Your task to perform on an android device: Go to sound settings Image 0: 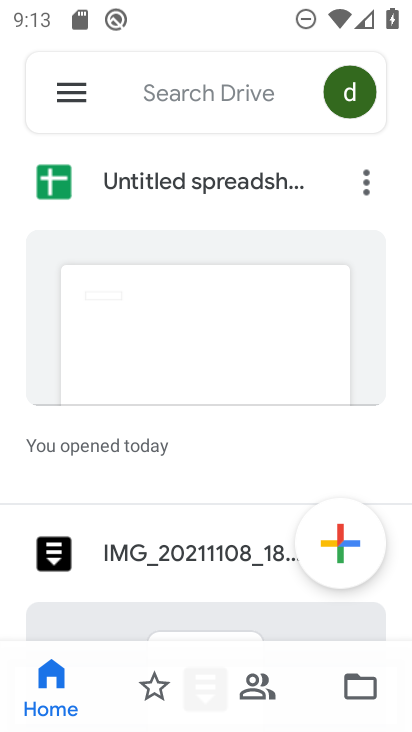
Step 0: press home button
Your task to perform on an android device: Go to sound settings Image 1: 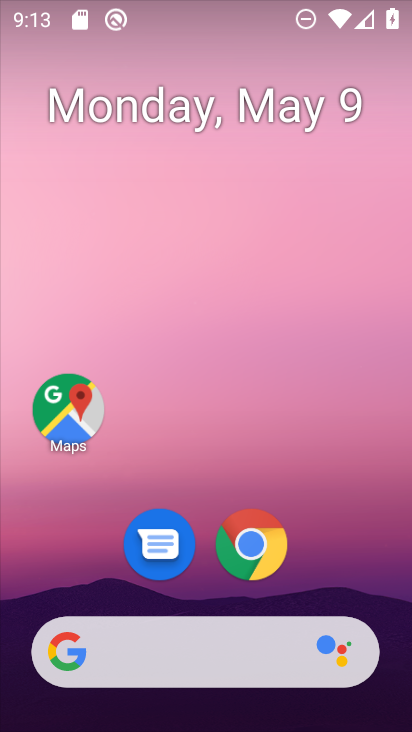
Step 1: drag from (328, 578) to (227, 111)
Your task to perform on an android device: Go to sound settings Image 2: 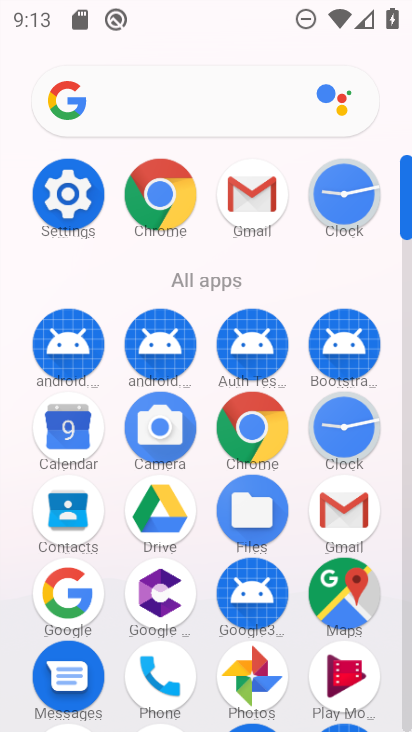
Step 2: click (62, 202)
Your task to perform on an android device: Go to sound settings Image 3: 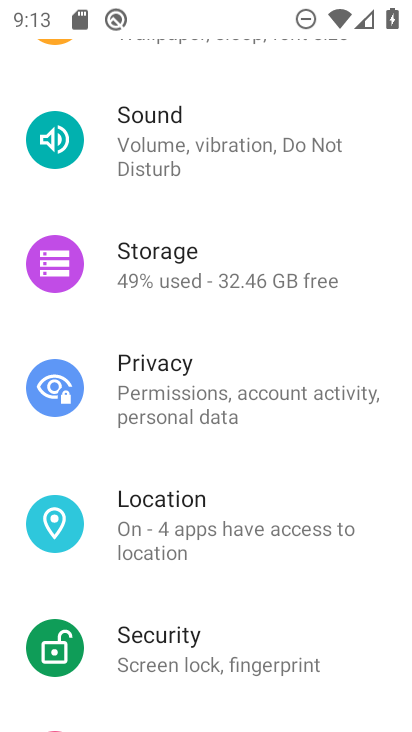
Step 3: drag from (234, 476) to (235, 168)
Your task to perform on an android device: Go to sound settings Image 4: 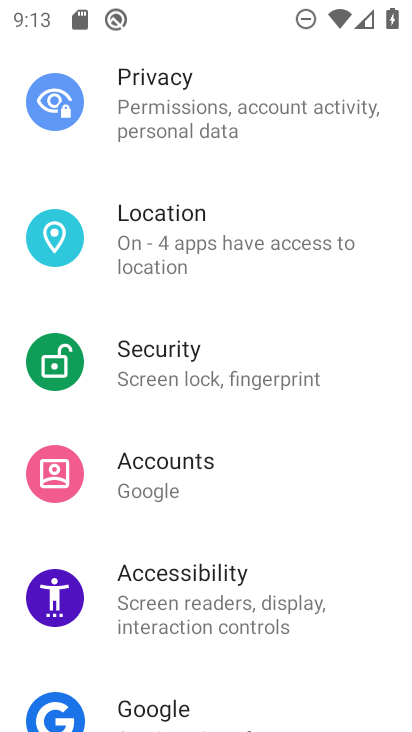
Step 4: drag from (210, 523) to (139, 189)
Your task to perform on an android device: Go to sound settings Image 5: 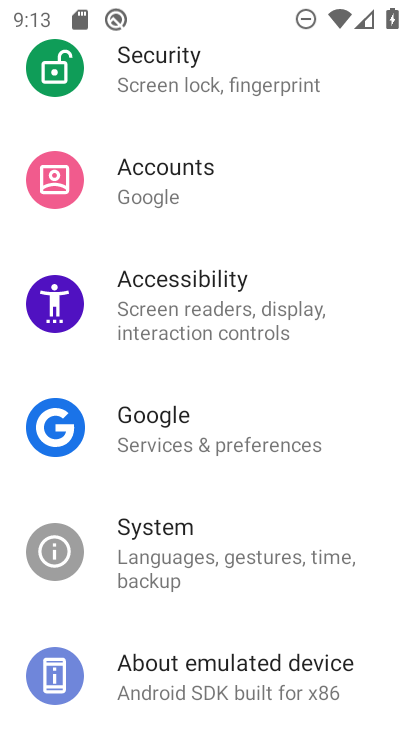
Step 5: drag from (184, 211) to (219, 641)
Your task to perform on an android device: Go to sound settings Image 6: 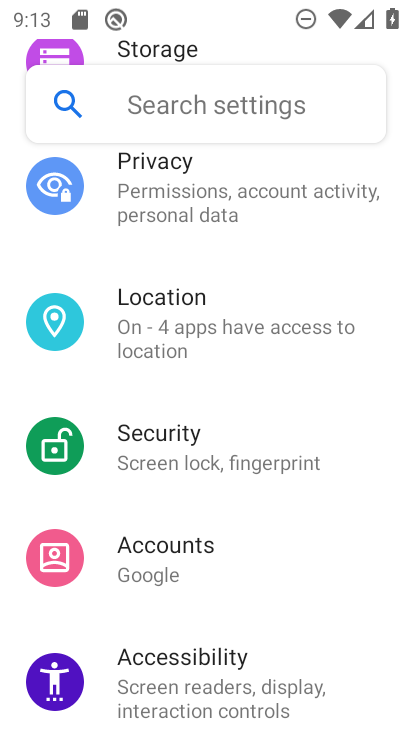
Step 6: drag from (158, 253) to (167, 561)
Your task to perform on an android device: Go to sound settings Image 7: 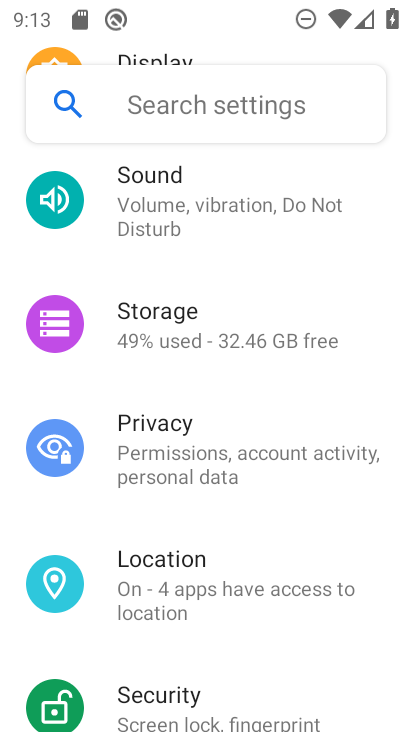
Step 7: click (136, 169)
Your task to perform on an android device: Go to sound settings Image 8: 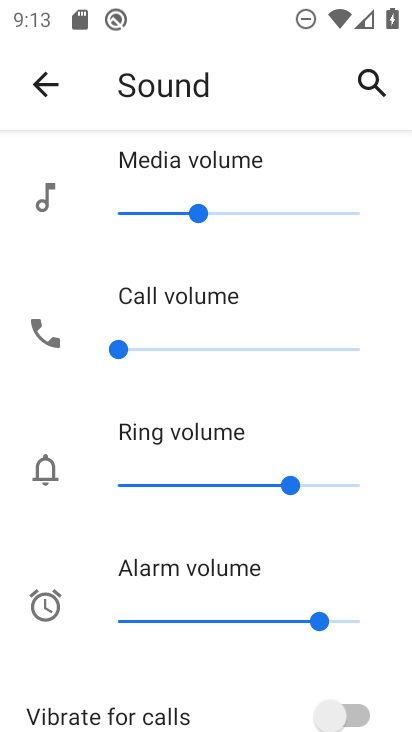
Step 8: task complete